Your task to perform on an android device: Show me popular videos on Youtube Image 0: 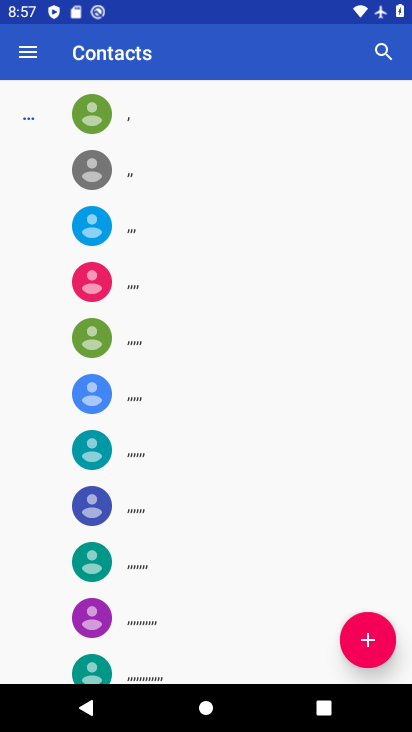
Step 0: press home button
Your task to perform on an android device: Show me popular videos on Youtube Image 1: 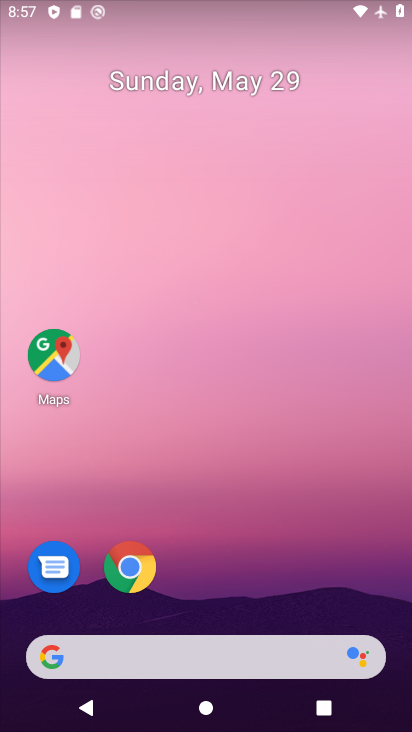
Step 1: drag from (363, 618) to (343, 100)
Your task to perform on an android device: Show me popular videos on Youtube Image 2: 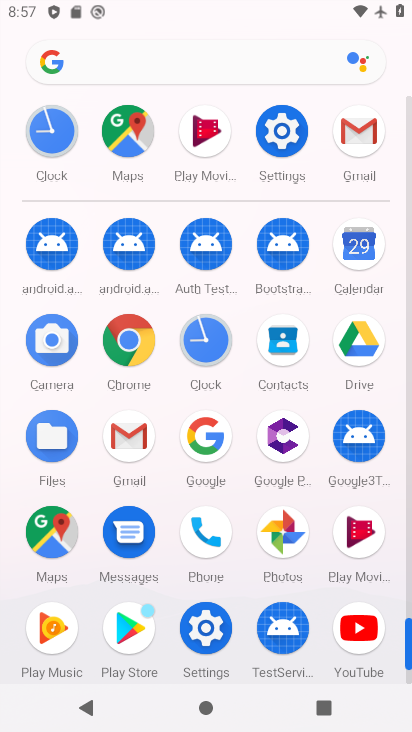
Step 2: click (355, 626)
Your task to perform on an android device: Show me popular videos on Youtube Image 3: 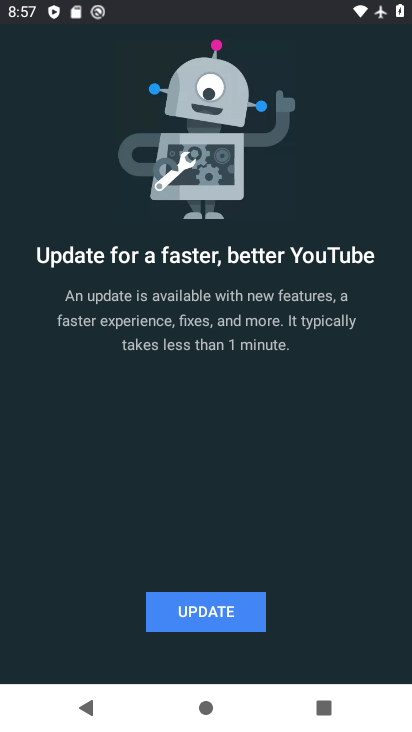
Step 3: click (204, 603)
Your task to perform on an android device: Show me popular videos on Youtube Image 4: 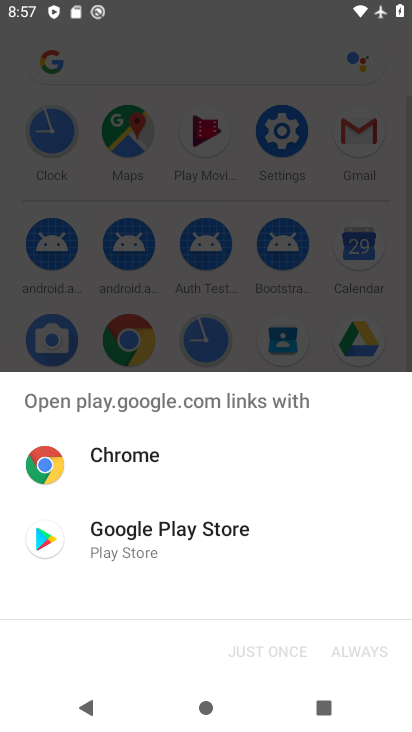
Step 4: click (118, 534)
Your task to perform on an android device: Show me popular videos on Youtube Image 5: 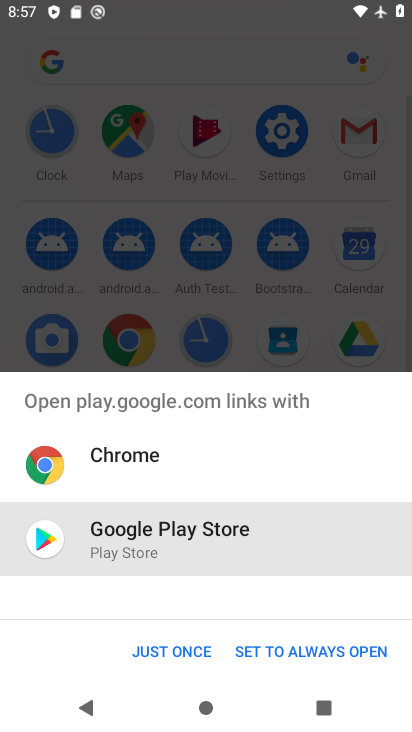
Step 5: click (163, 649)
Your task to perform on an android device: Show me popular videos on Youtube Image 6: 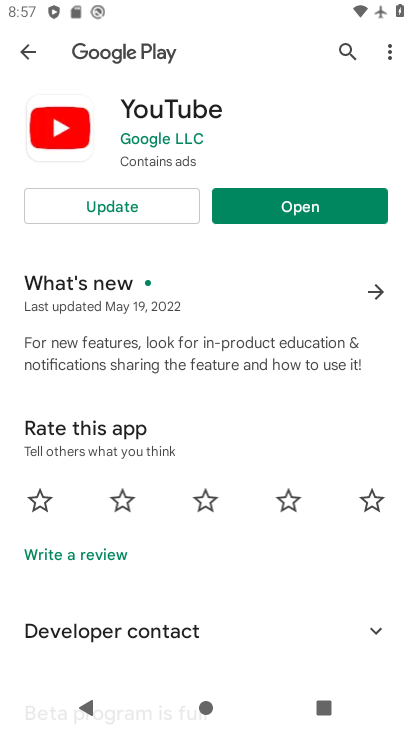
Step 6: click (103, 204)
Your task to perform on an android device: Show me popular videos on Youtube Image 7: 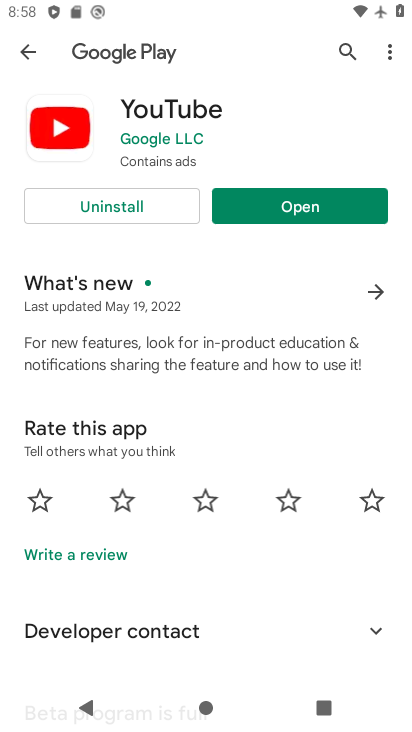
Step 7: click (283, 197)
Your task to perform on an android device: Show me popular videos on Youtube Image 8: 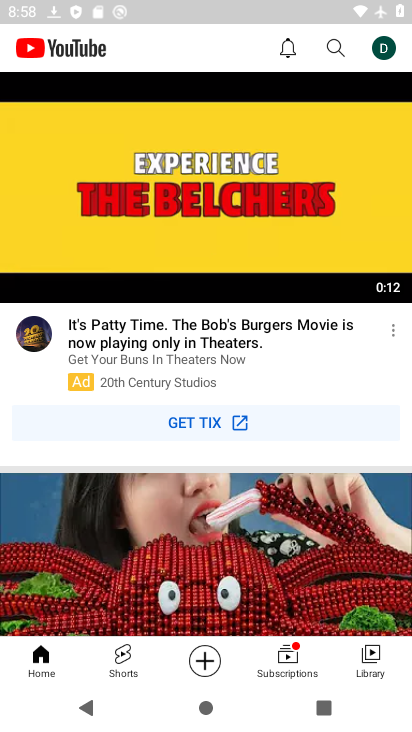
Step 8: task complete